Your task to perform on an android device: Go to eBay Image 0: 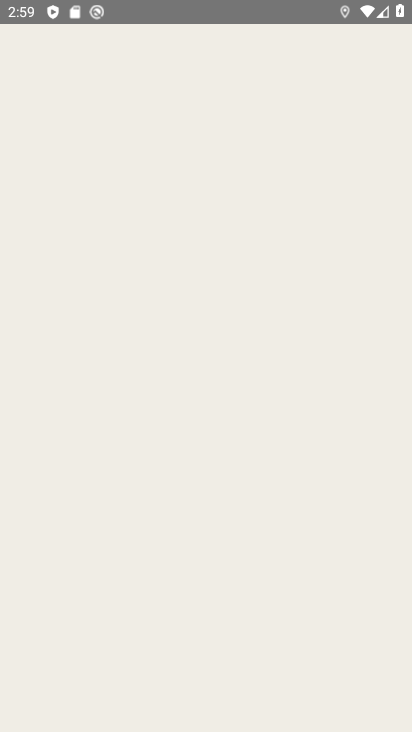
Step 0: drag from (226, 613) to (277, 73)
Your task to perform on an android device: Go to eBay Image 1: 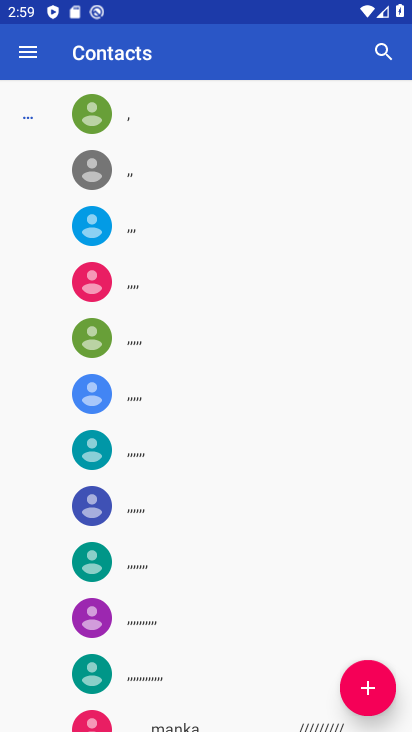
Step 1: press home button
Your task to perform on an android device: Go to eBay Image 2: 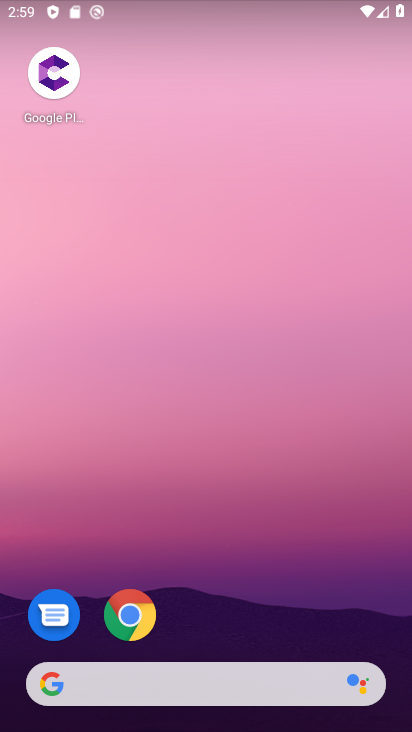
Step 2: click (122, 606)
Your task to perform on an android device: Go to eBay Image 3: 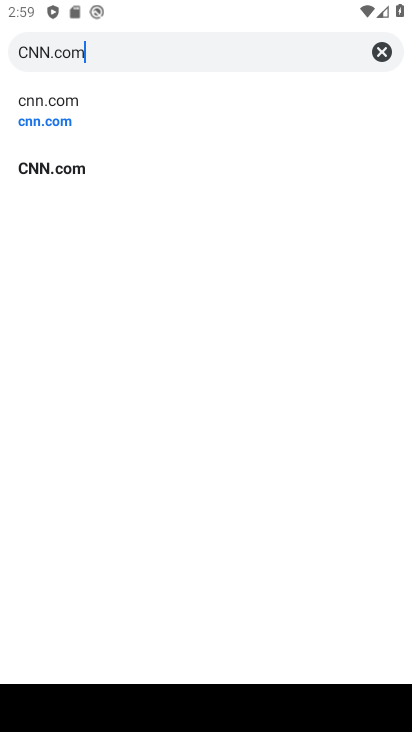
Step 3: click (385, 56)
Your task to perform on an android device: Go to eBay Image 4: 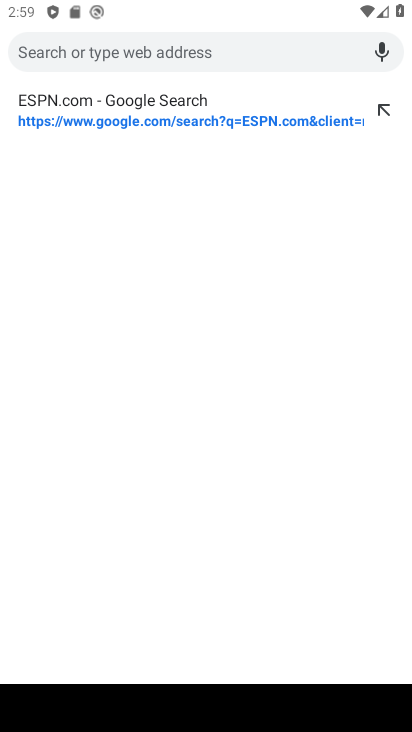
Step 4: type "eBay"
Your task to perform on an android device: Go to eBay Image 5: 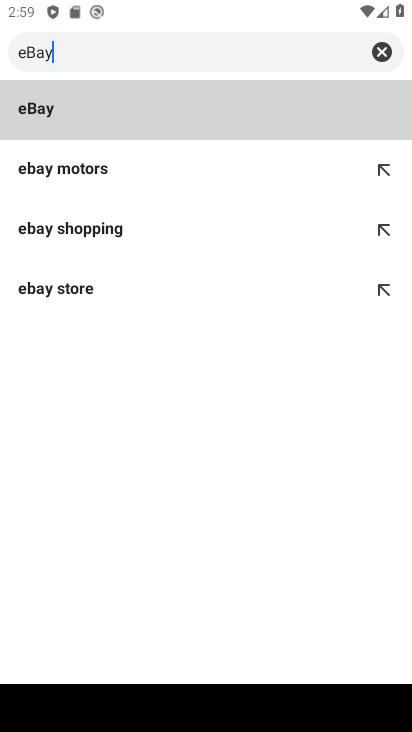
Step 5: click (154, 121)
Your task to perform on an android device: Go to eBay Image 6: 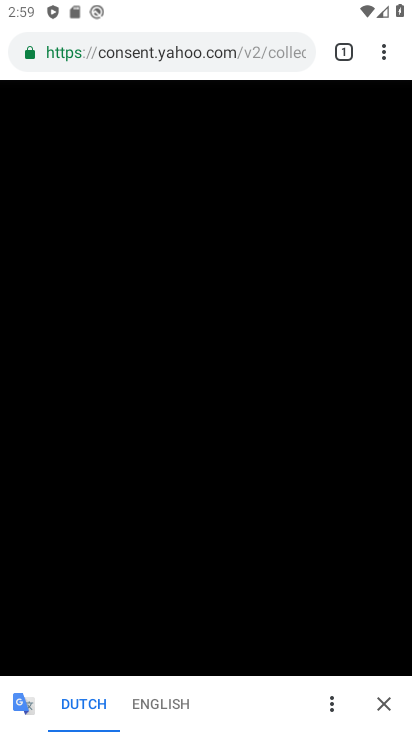
Step 6: task complete